Your task to perform on an android device: Open Amazon Image 0: 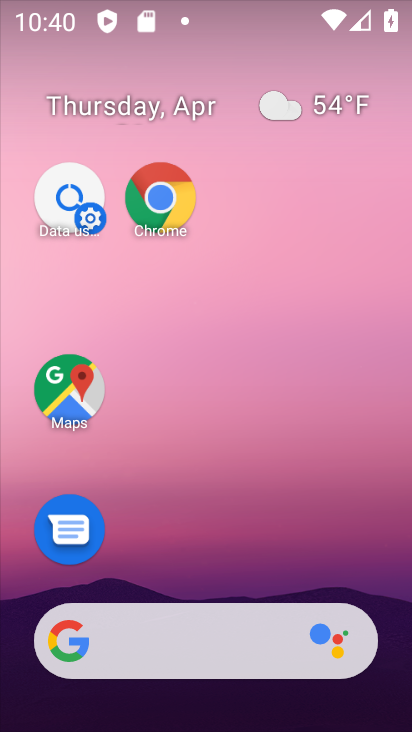
Step 0: drag from (213, 590) to (205, 39)
Your task to perform on an android device: Open Amazon Image 1: 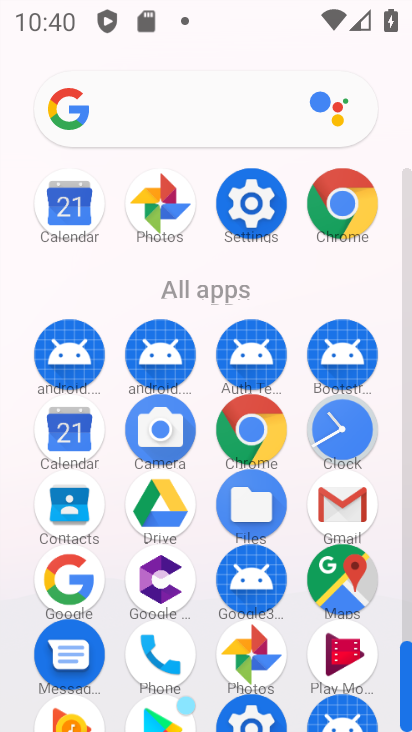
Step 1: click (266, 430)
Your task to perform on an android device: Open Amazon Image 2: 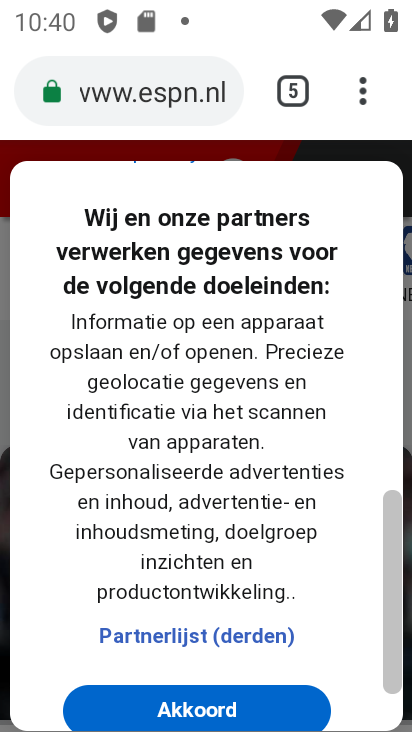
Step 2: click (287, 94)
Your task to perform on an android device: Open Amazon Image 3: 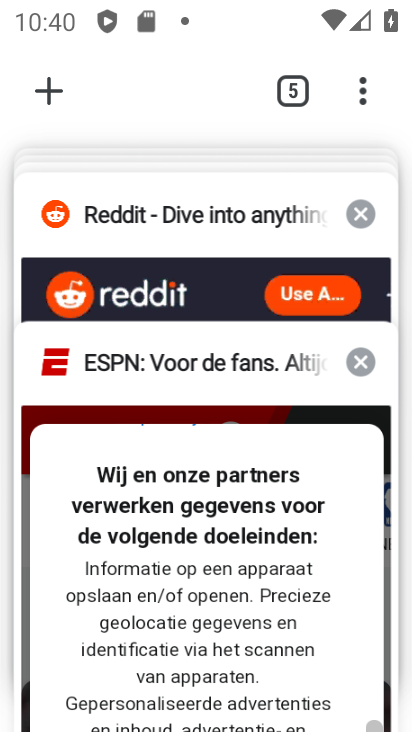
Step 3: click (50, 84)
Your task to perform on an android device: Open Amazon Image 4: 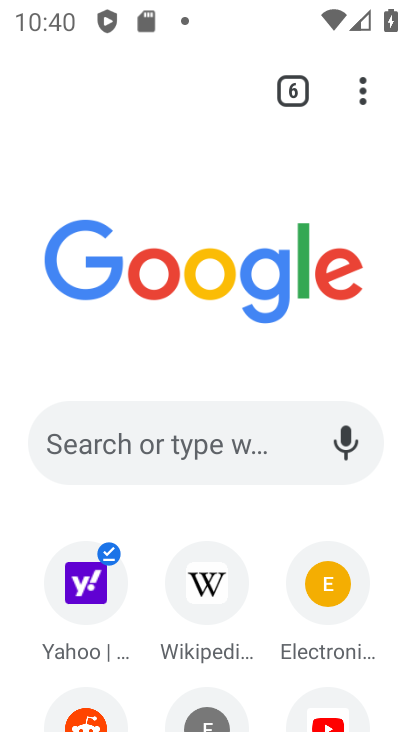
Step 4: click (225, 466)
Your task to perform on an android device: Open Amazon Image 5: 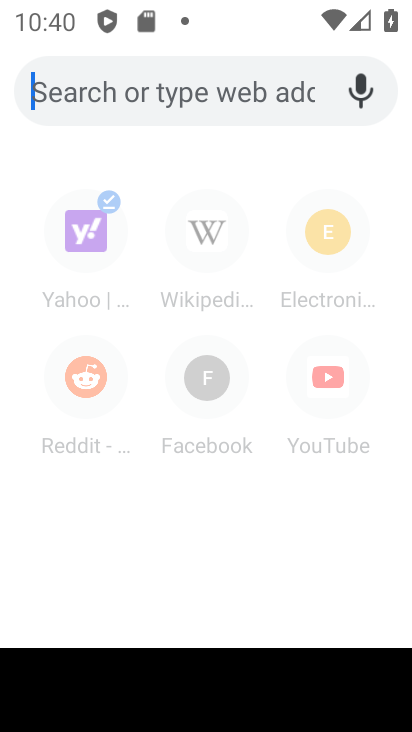
Step 5: type "amazon"
Your task to perform on an android device: Open Amazon Image 6: 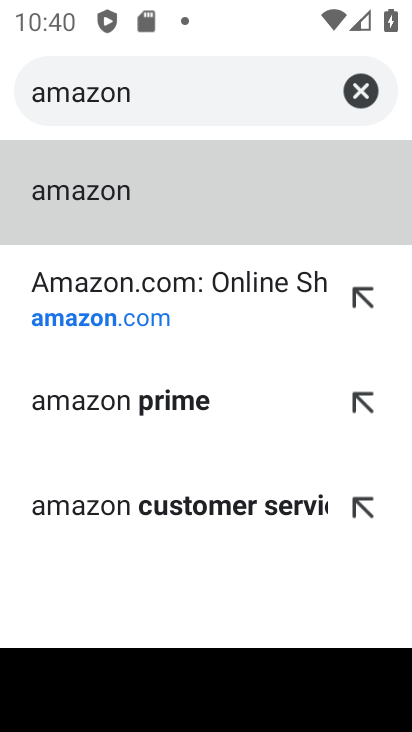
Step 6: click (210, 315)
Your task to perform on an android device: Open Amazon Image 7: 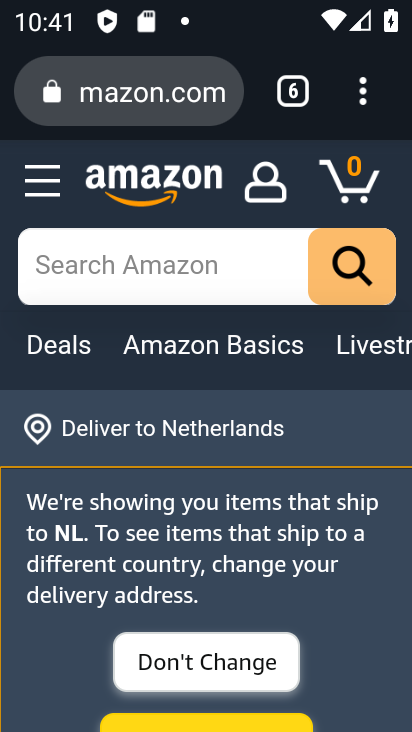
Step 7: task complete